Your task to perform on an android device: uninstall "Truecaller" Image 0: 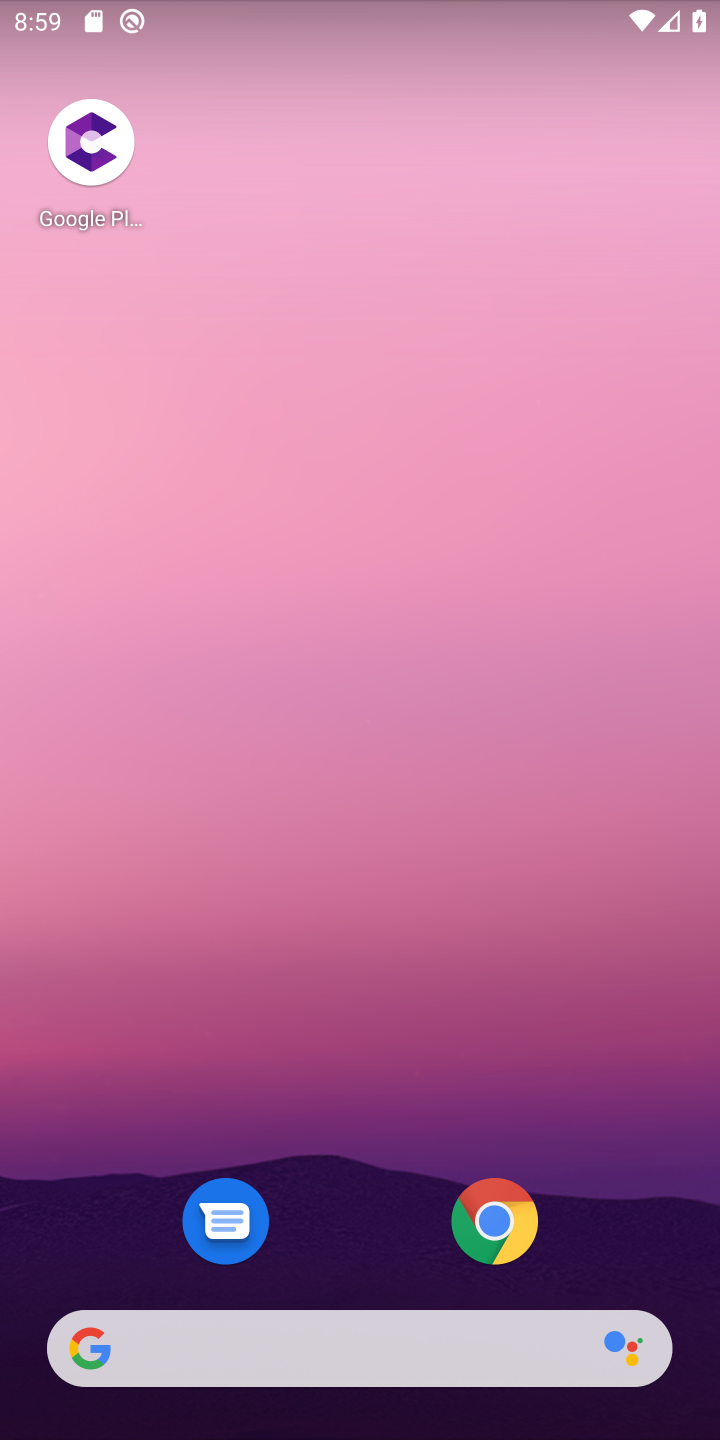
Step 0: drag from (362, 1153) to (483, 49)
Your task to perform on an android device: uninstall "Truecaller" Image 1: 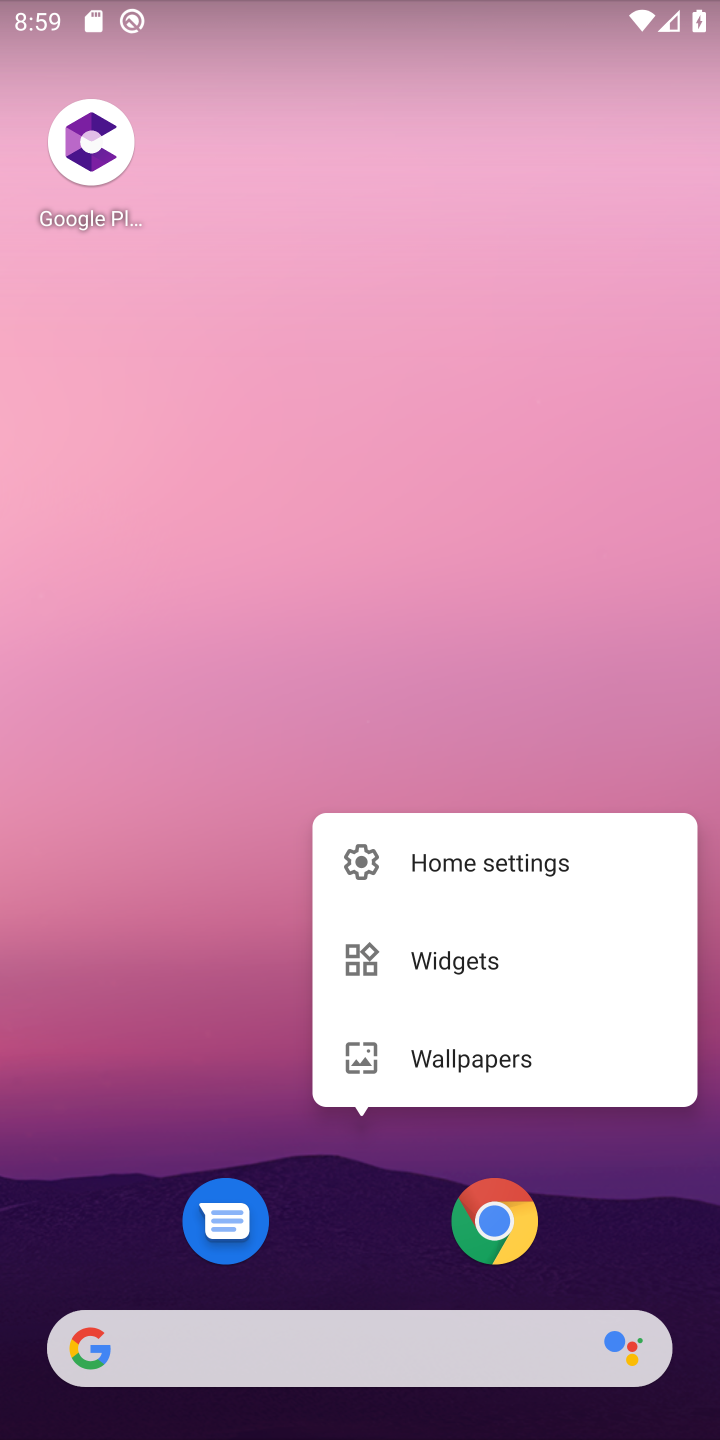
Step 1: click (276, 673)
Your task to perform on an android device: uninstall "Truecaller" Image 2: 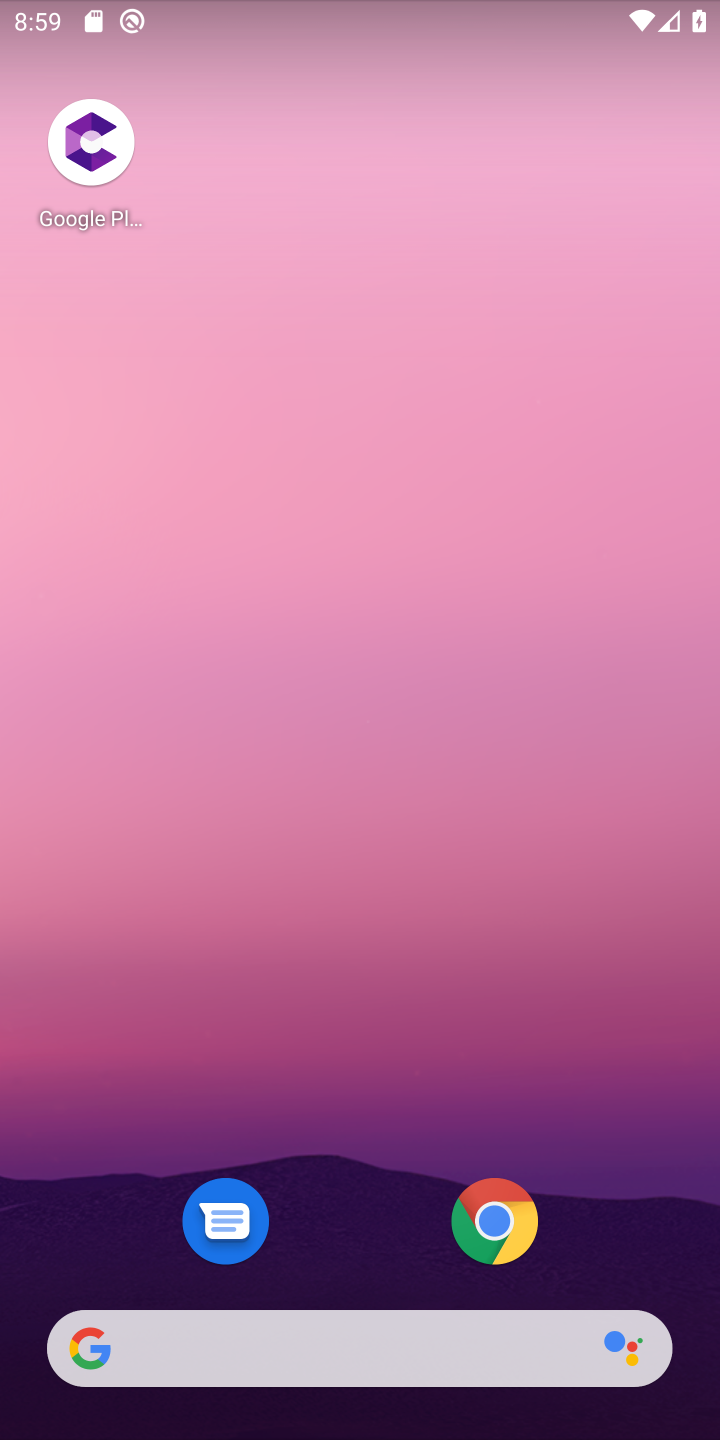
Step 2: drag from (343, 1112) to (444, 170)
Your task to perform on an android device: uninstall "Truecaller" Image 3: 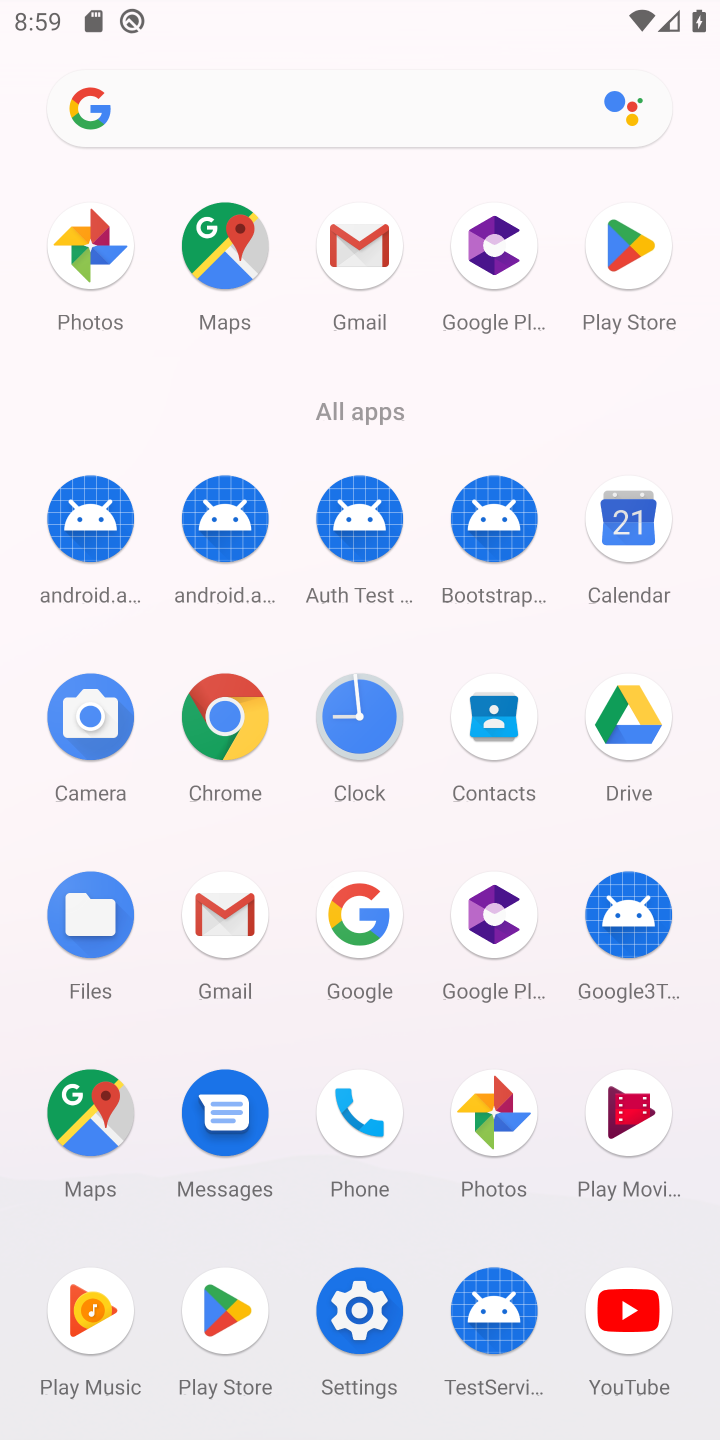
Step 3: click (632, 244)
Your task to perform on an android device: uninstall "Truecaller" Image 4: 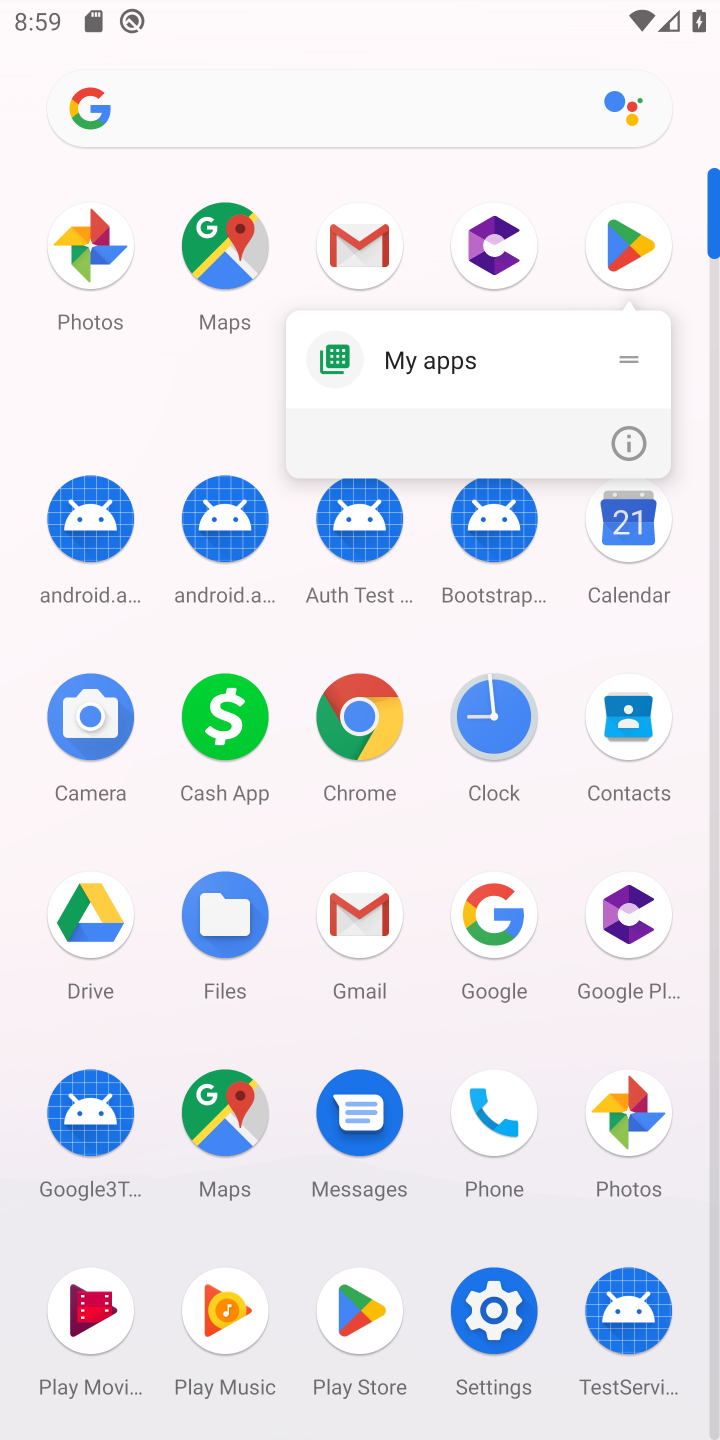
Step 4: click (632, 244)
Your task to perform on an android device: uninstall "Truecaller" Image 5: 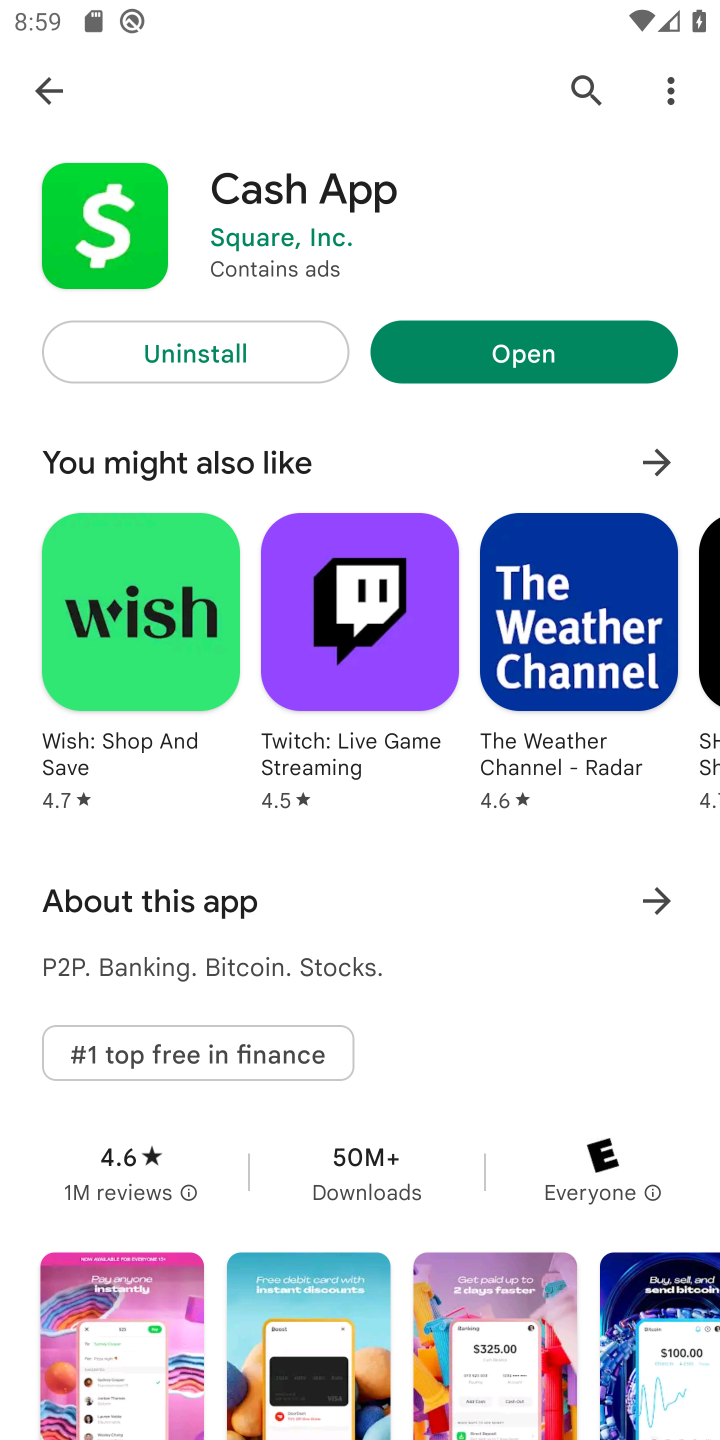
Step 5: click (581, 69)
Your task to perform on an android device: uninstall "Truecaller" Image 6: 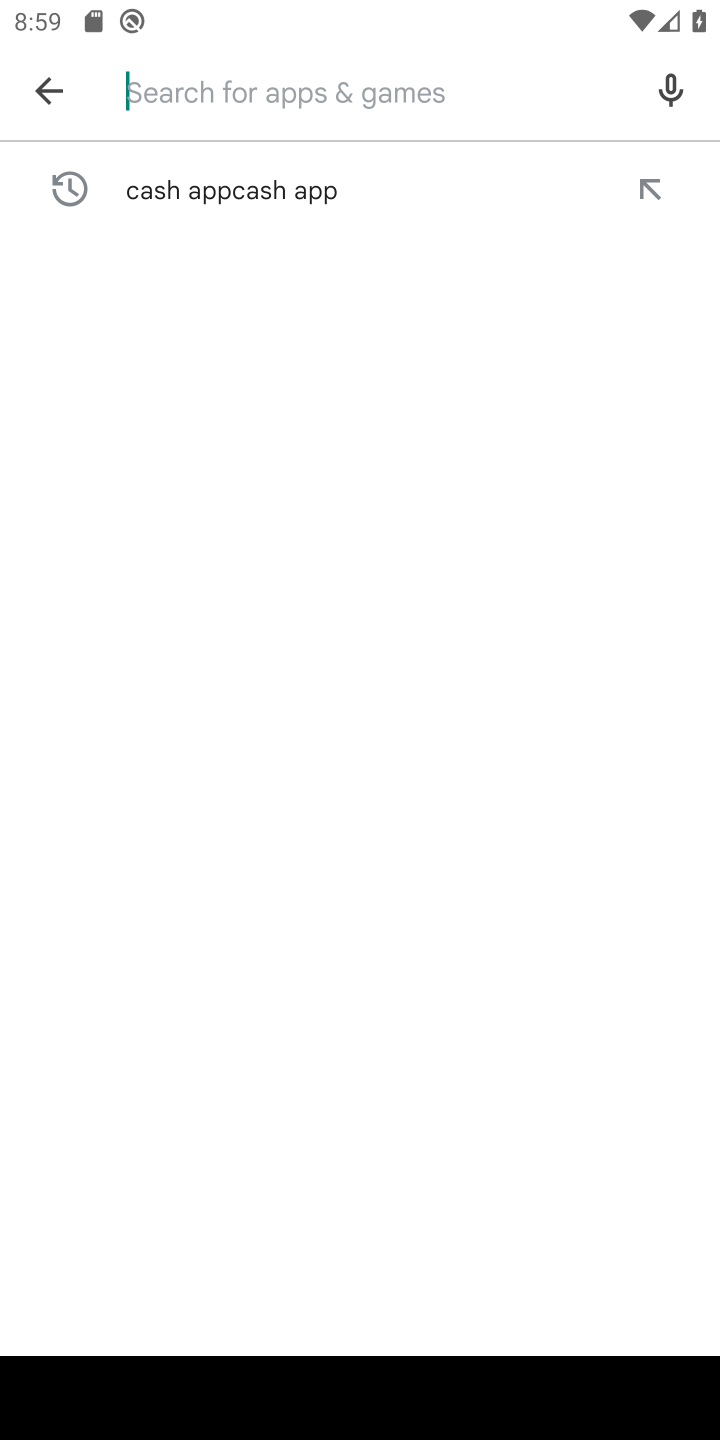
Step 6: type "Truecaller"
Your task to perform on an android device: uninstall "Truecaller" Image 7: 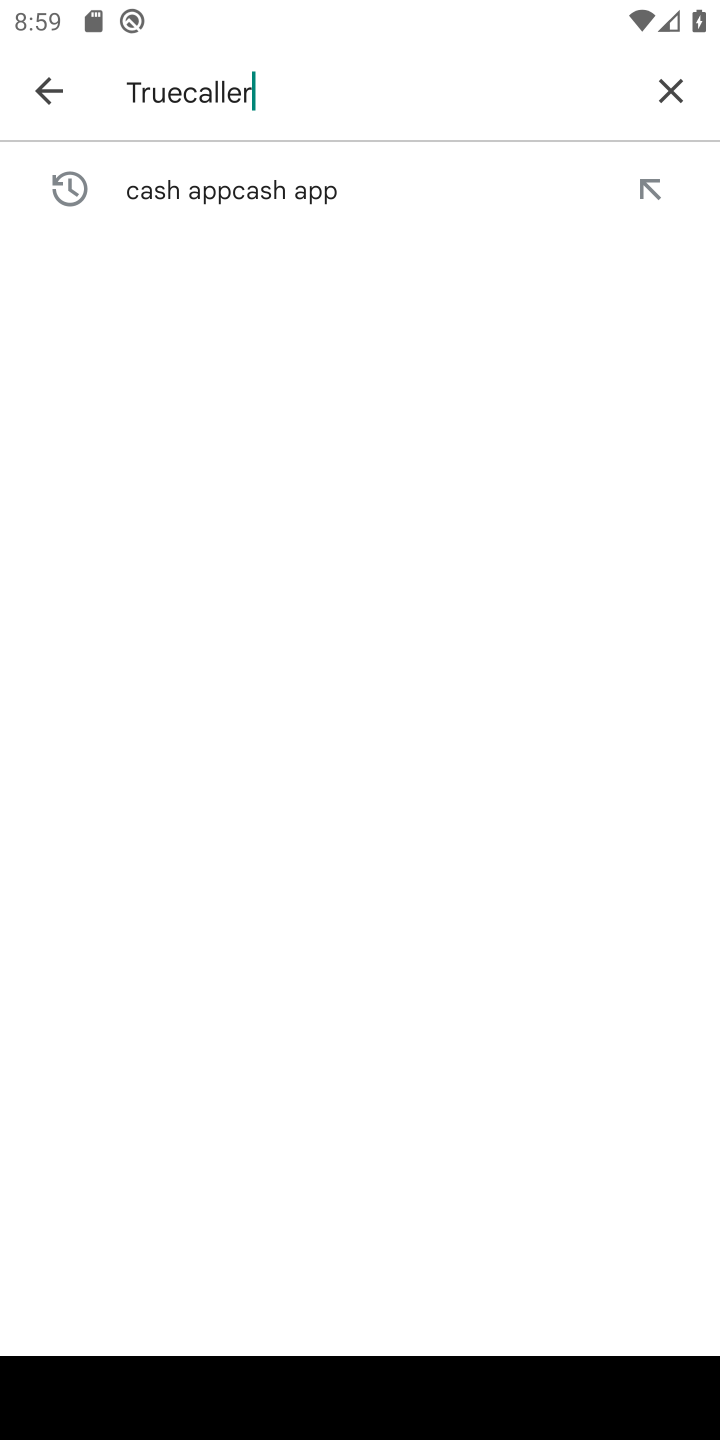
Step 7: type ""
Your task to perform on an android device: uninstall "Truecaller" Image 8: 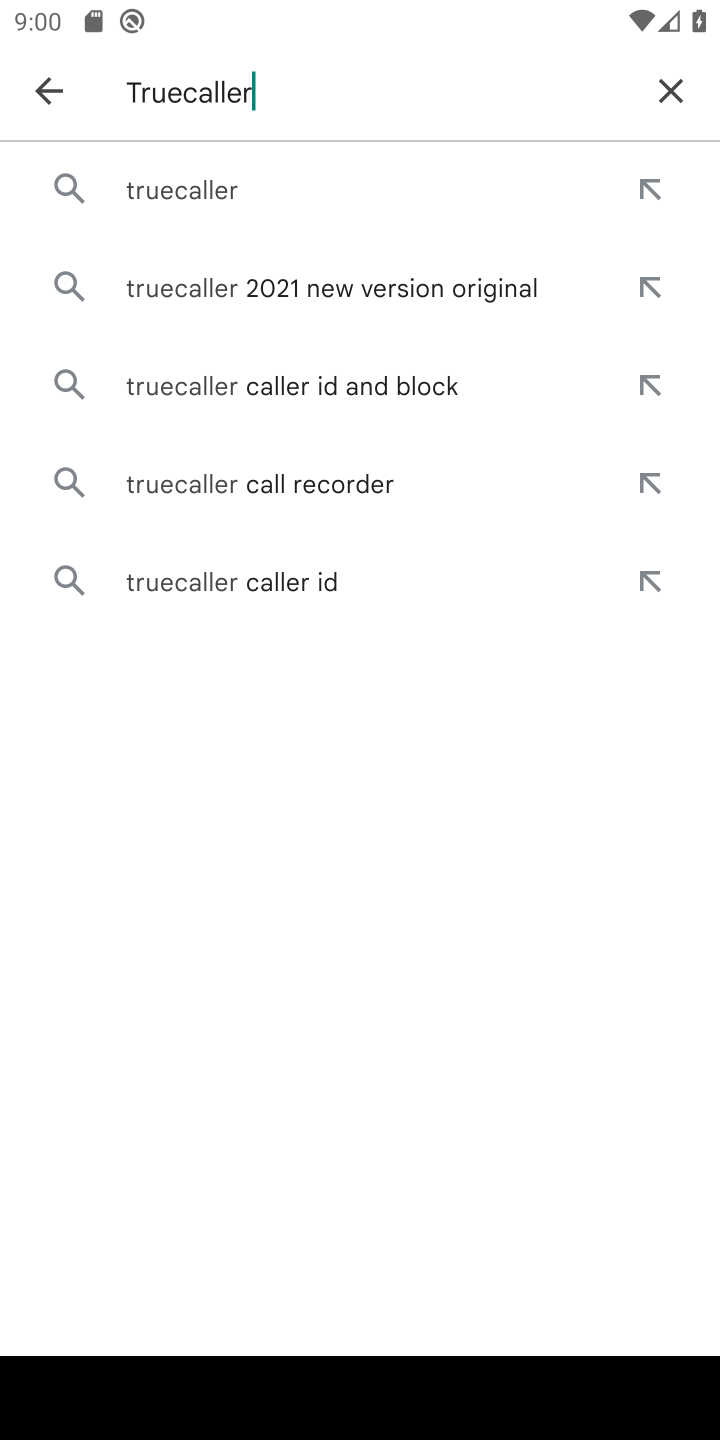
Step 8: click (153, 207)
Your task to perform on an android device: uninstall "Truecaller" Image 9: 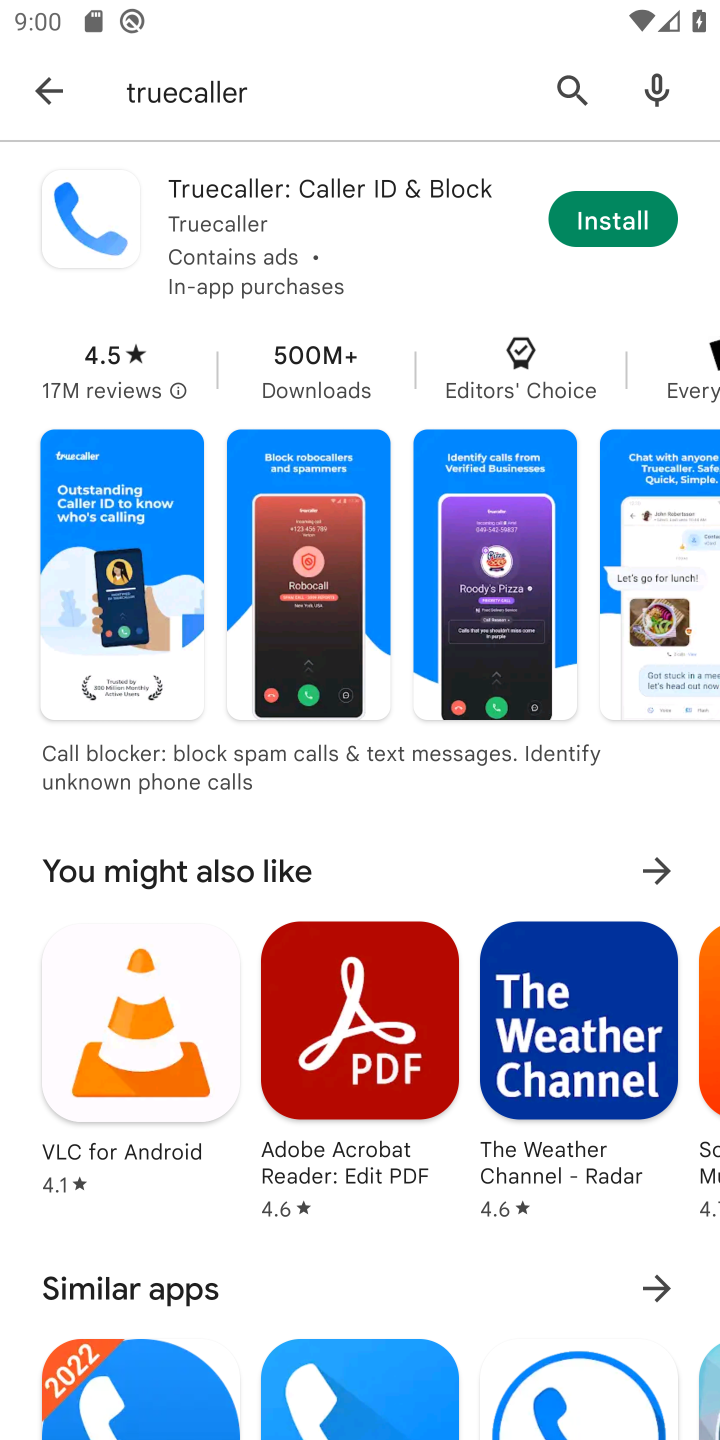
Step 9: click (356, 222)
Your task to perform on an android device: uninstall "Truecaller" Image 10: 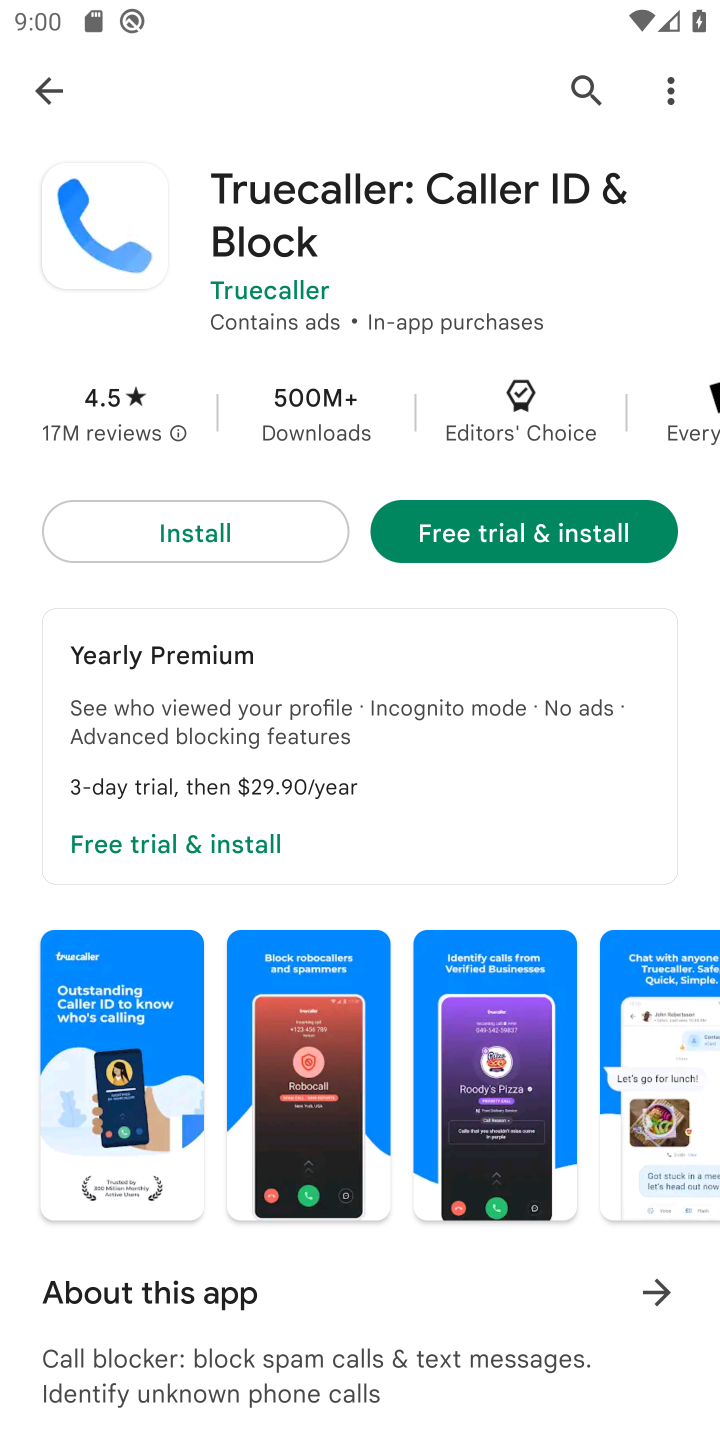
Step 10: task complete